Your task to perform on an android device: check storage Image 0: 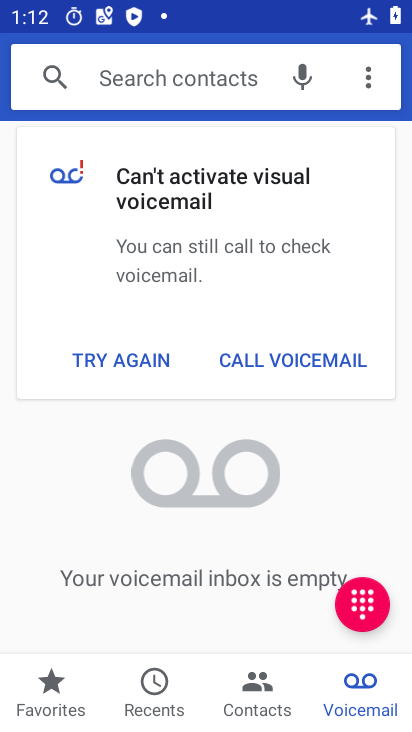
Step 0: press home button
Your task to perform on an android device: check storage Image 1: 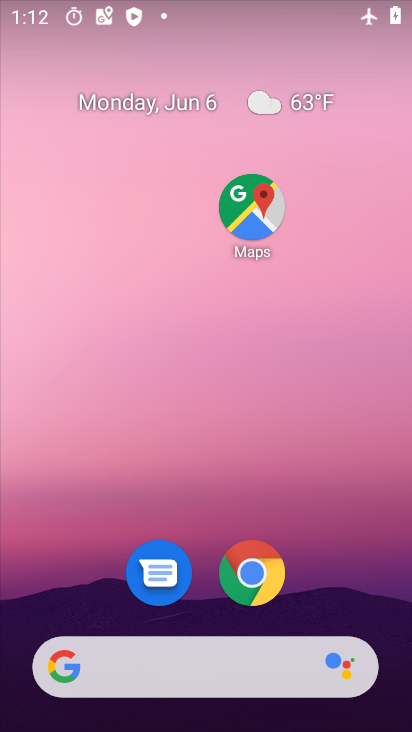
Step 1: drag from (168, 449) to (120, 155)
Your task to perform on an android device: check storage Image 2: 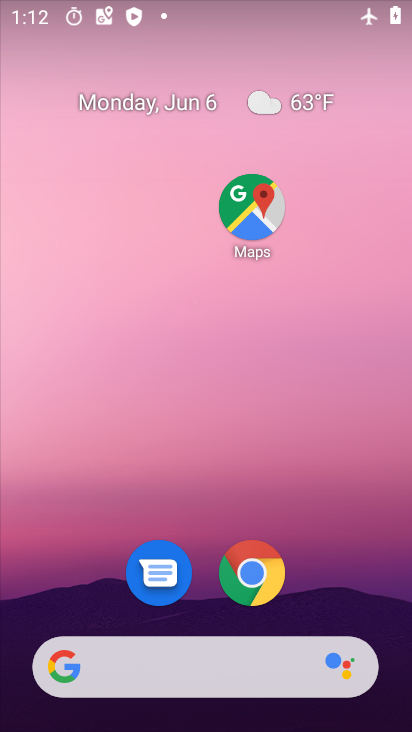
Step 2: drag from (216, 461) to (144, 14)
Your task to perform on an android device: check storage Image 3: 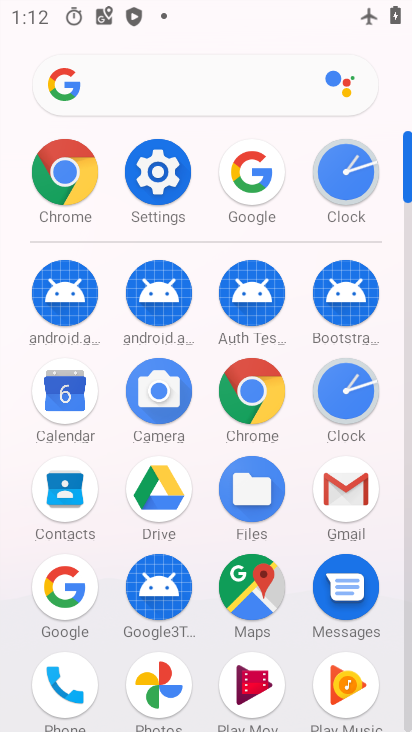
Step 3: click (157, 190)
Your task to perform on an android device: check storage Image 4: 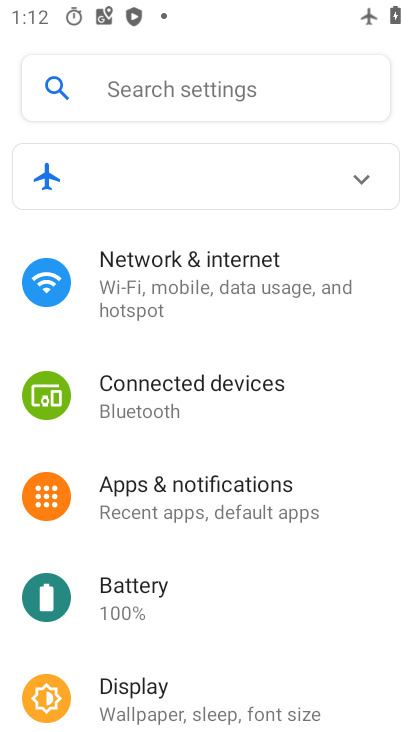
Step 4: drag from (181, 470) to (184, 17)
Your task to perform on an android device: check storage Image 5: 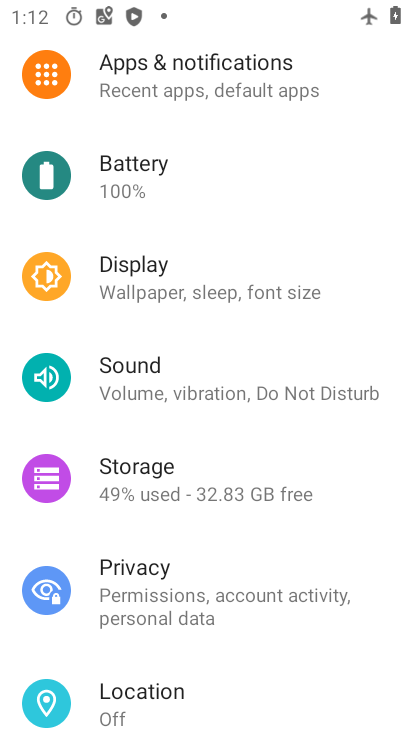
Step 5: click (147, 473)
Your task to perform on an android device: check storage Image 6: 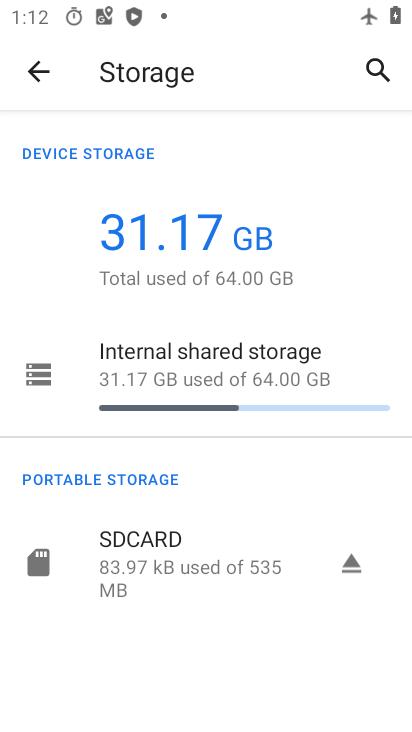
Step 6: click (203, 378)
Your task to perform on an android device: check storage Image 7: 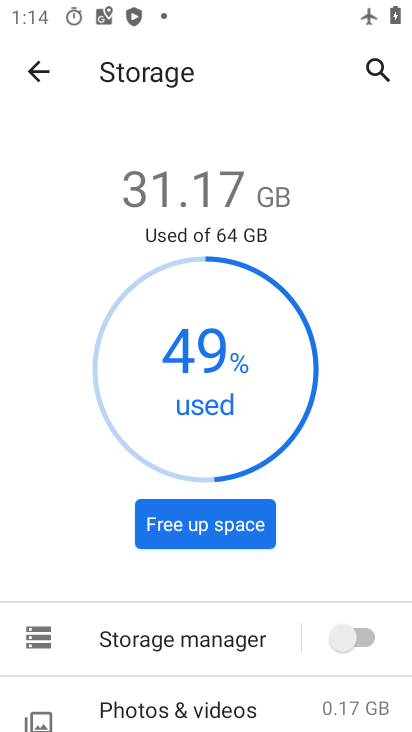
Step 7: task complete